Your task to perform on an android device: Search for seafood restaurants on Google Maps Image 0: 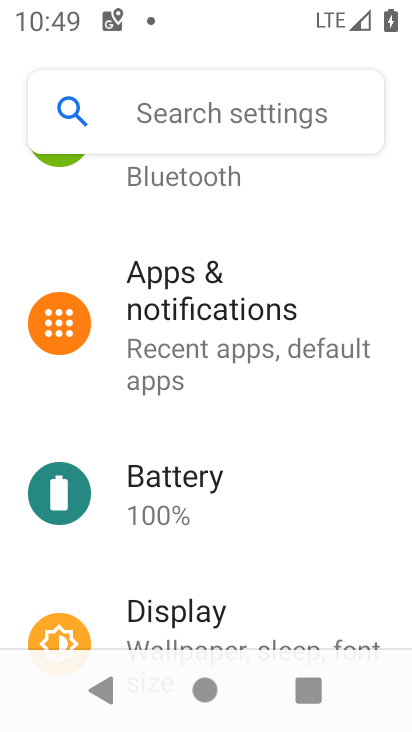
Step 0: press home button
Your task to perform on an android device: Search for seafood restaurants on Google Maps Image 1: 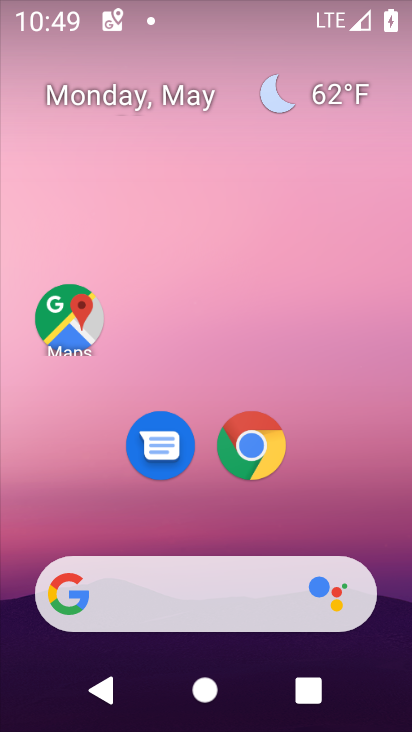
Step 1: drag from (381, 619) to (360, 59)
Your task to perform on an android device: Search for seafood restaurants on Google Maps Image 2: 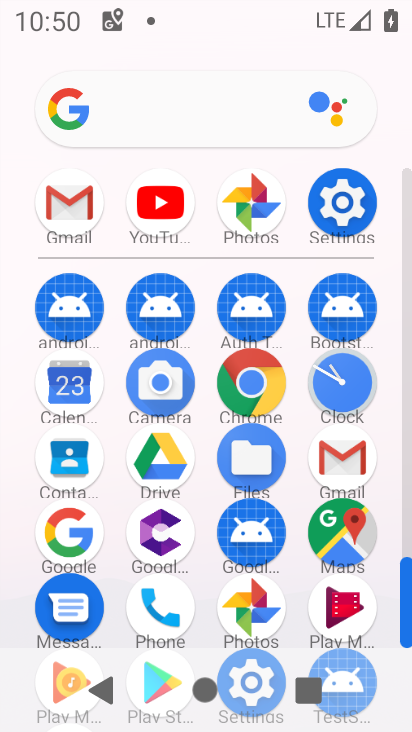
Step 2: click (327, 531)
Your task to perform on an android device: Search for seafood restaurants on Google Maps Image 3: 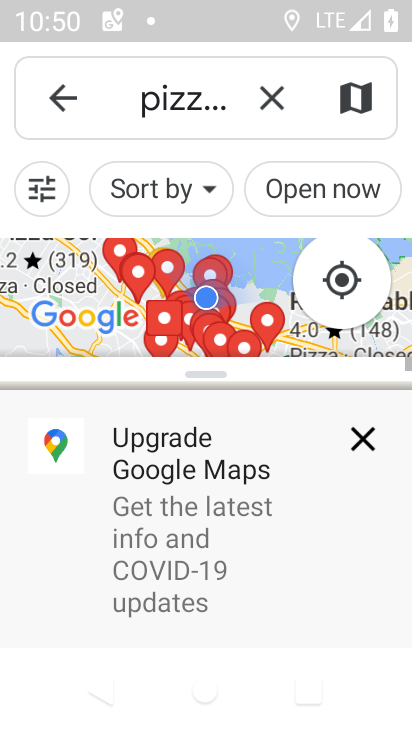
Step 3: click (271, 77)
Your task to perform on an android device: Search for seafood restaurants on Google Maps Image 4: 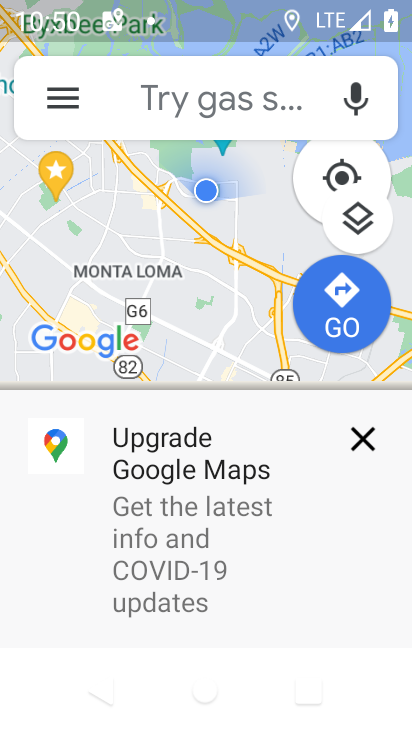
Step 4: click (168, 93)
Your task to perform on an android device: Search for seafood restaurants on Google Maps Image 5: 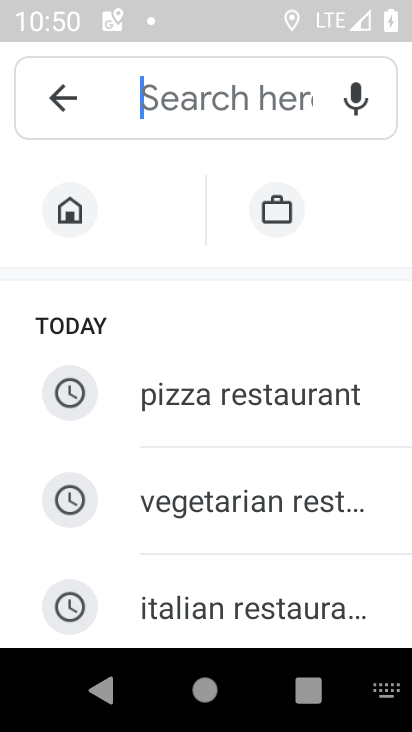
Step 5: drag from (180, 603) to (224, 142)
Your task to perform on an android device: Search for seafood restaurants on Google Maps Image 6: 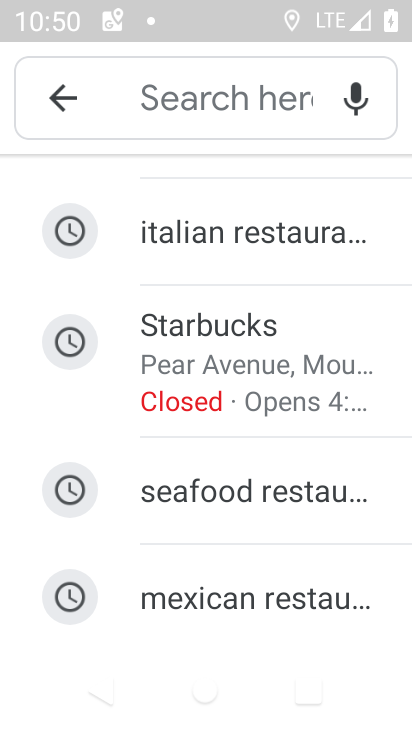
Step 6: drag from (135, 561) to (162, 428)
Your task to perform on an android device: Search for seafood restaurants on Google Maps Image 7: 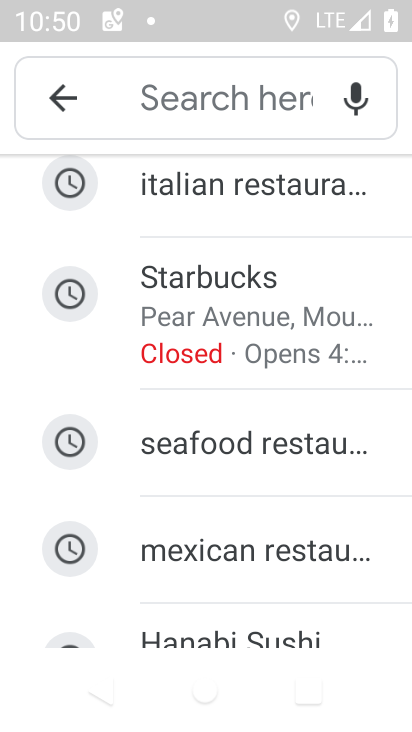
Step 7: click (207, 448)
Your task to perform on an android device: Search for seafood restaurants on Google Maps Image 8: 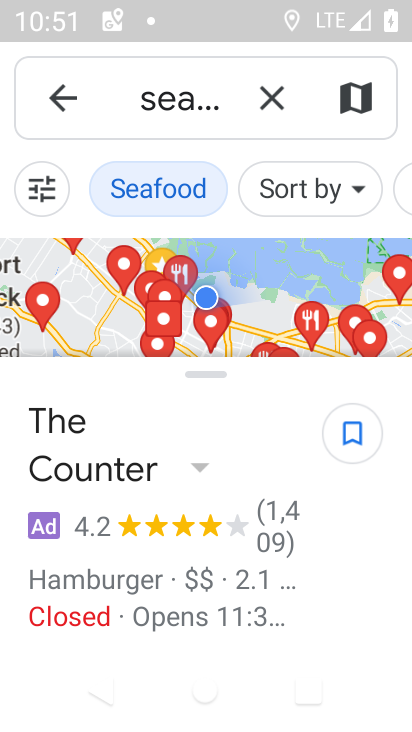
Step 8: task complete